Your task to perform on an android device: create a new album in the google photos Image 0: 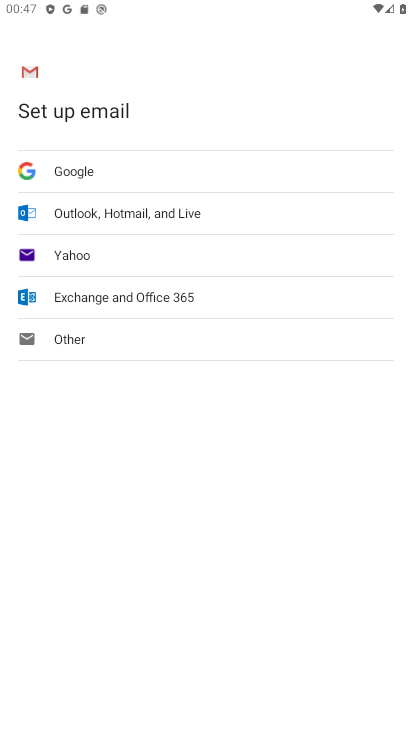
Step 0: press home button
Your task to perform on an android device: create a new album in the google photos Image 1: 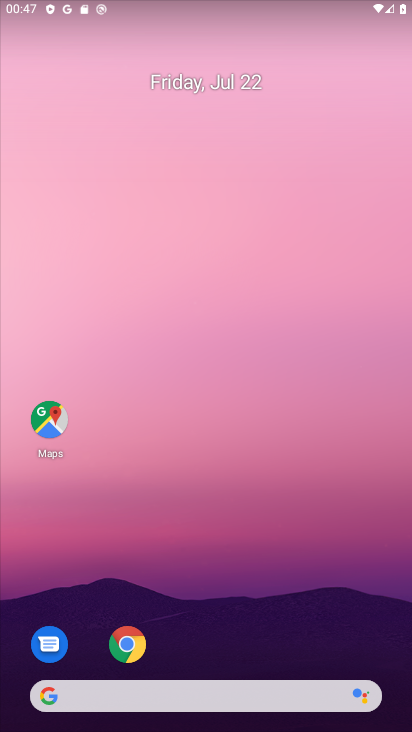
Step 1: drag from (140, 710) to (143, 114)
Your task to perform on an android device: create a new album in the google photos Image 2: 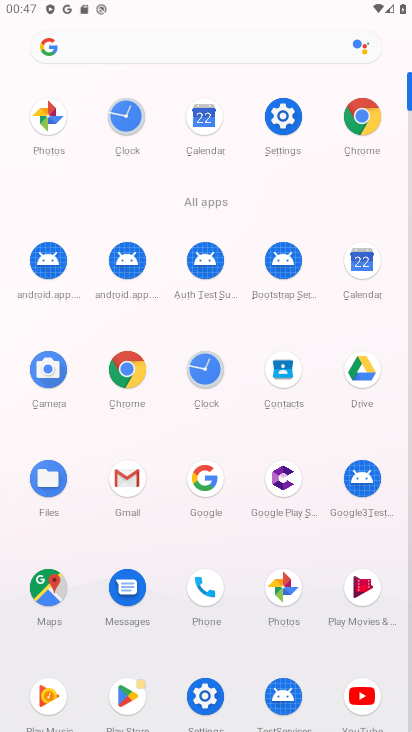
Step 2: click (286, 582)
Your task to perform on an android device: create a new album in the google photos Image 3: 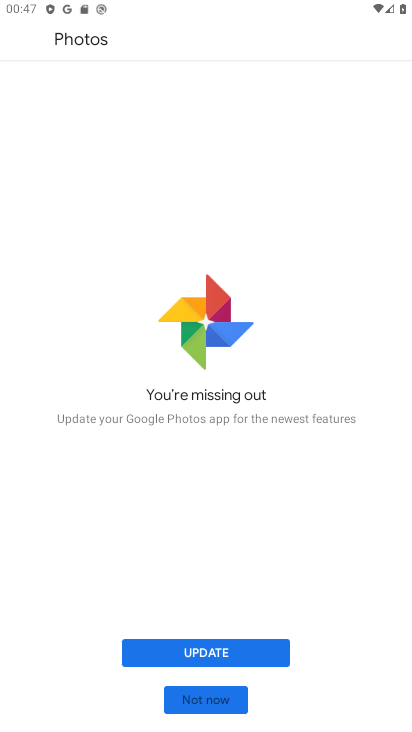
Step 3: click (246, 659)
Your task to perform on an android device: create a new album in the google photos Image 4: 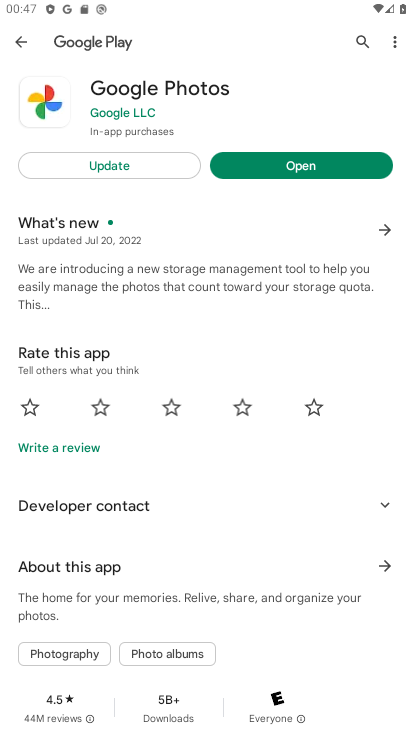
Step 4: click (156, 168)
Your task to perform on an android device: create a new album in the google photos Image 5: 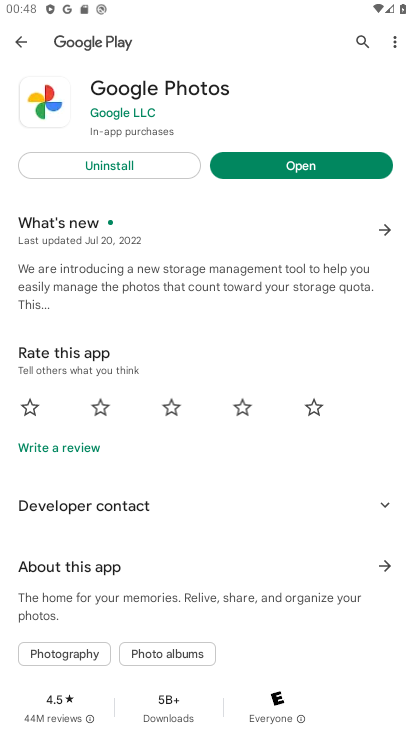
Step 5: click (327, 164)
Your task to perform on an android device: create a new album in the google photos Image 6: 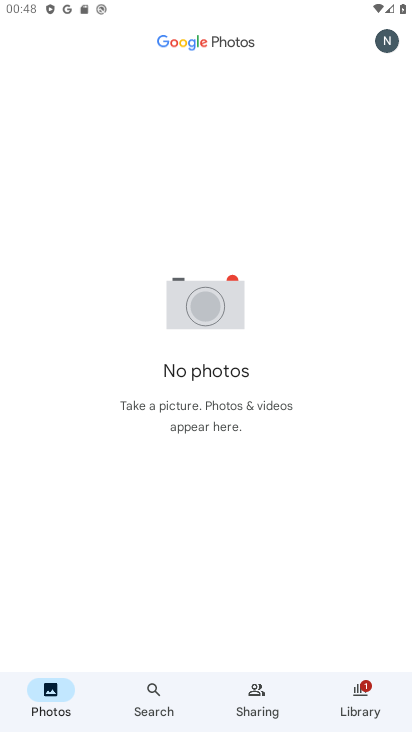
Step 6: task complete